Your task to perform on an android device: set an alarm Image 0: 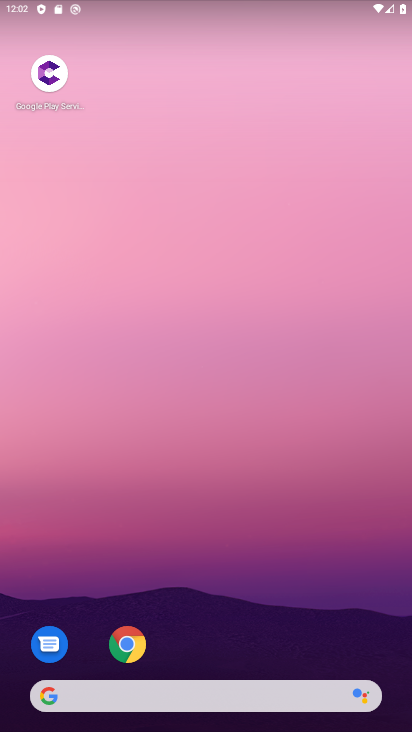
Step 0: drag from (310, 691) to (249, 156)
Your task to perform on an android device: set an alarm Image 1: 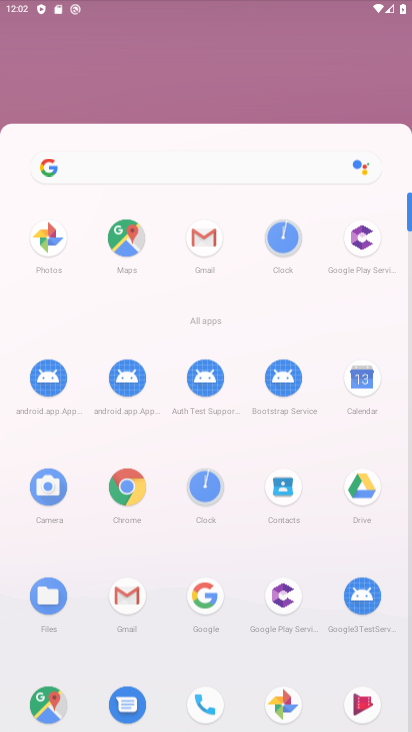
Step 1: drag from (268, 590) to (245, 140)
Your task to perform on an android device: set an alarm Image 2: 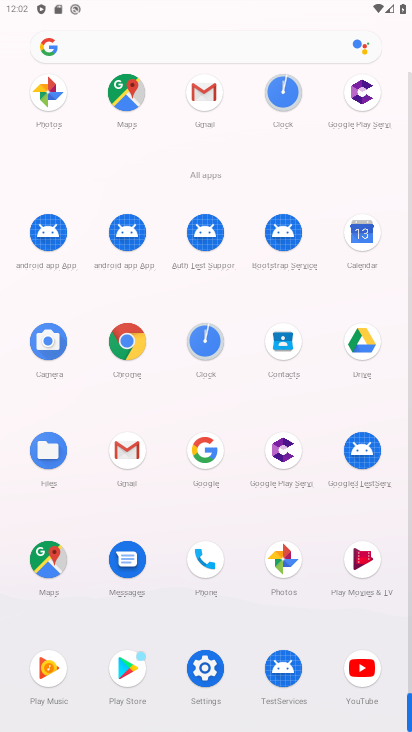
Step 2: click (284, 95)
Your task to perform on an android device: set an alarm Image 3: 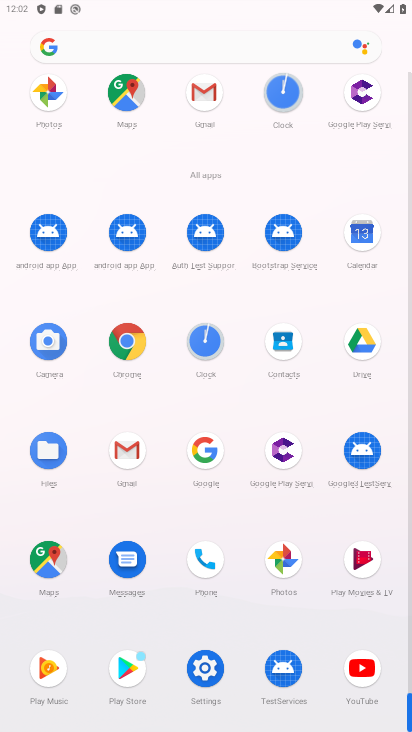
Step 3: click (281, 94)
Your task to perform on an android device: set an alarm Image 4: 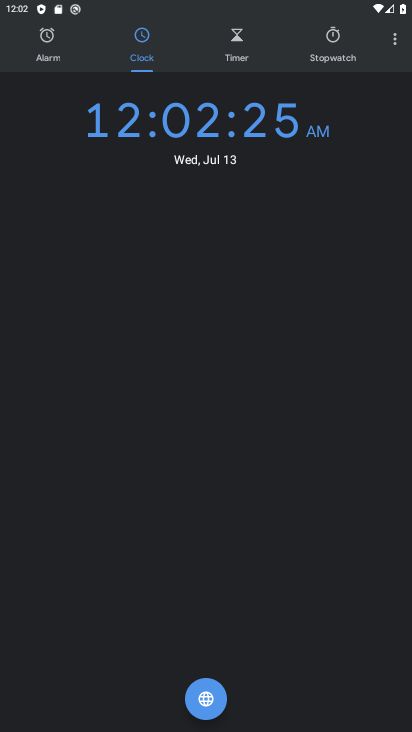
Step 4: click (51, 55)
Your task to perform on an android device: set an alarm Image 5: 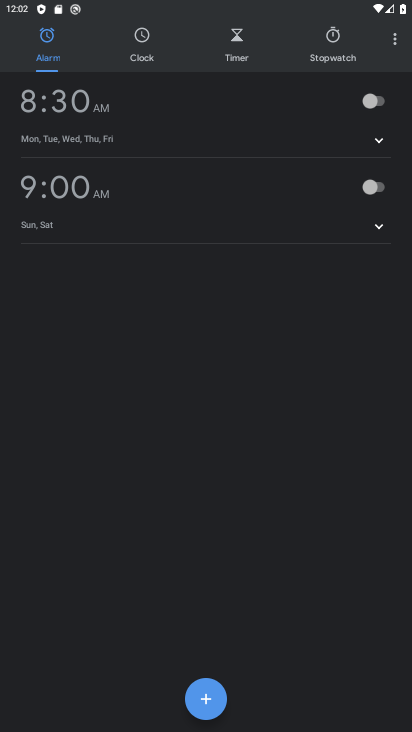
Step 5: click (370, 107)
Your task to perform on an android device: set an alarm Image 6: 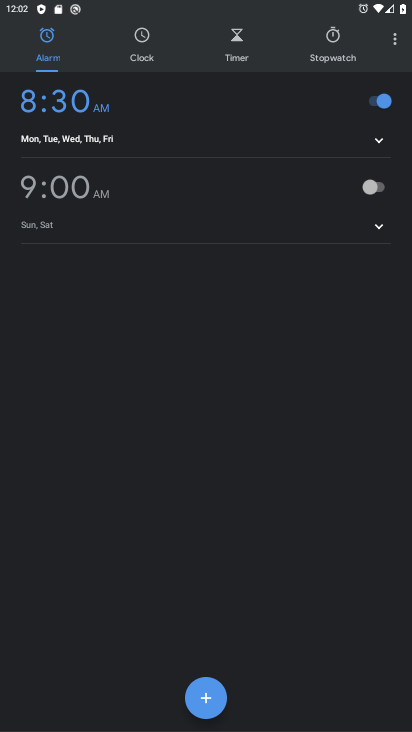
Step 6: task complete